Your task to perform on an android device: Open Google Maps and go to "Timeline" Image 0: 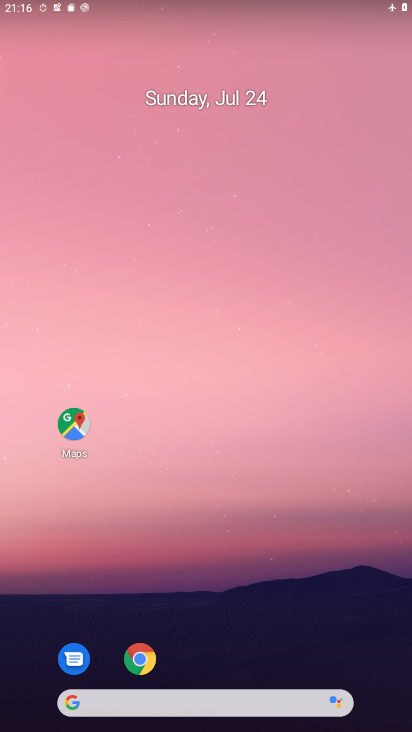
Step 0: drag from (197, 719) to (197, 115)
Your task to perform on an android device: Open Google Maps and go to "Timeline" Image 1: 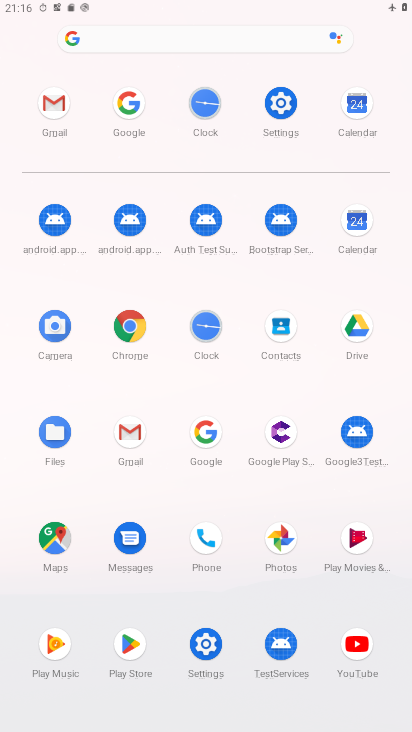
Step 1: click (49, 539)
Your task to perform on an android device: Open Google Maps and go to "Timeline" Image 2: 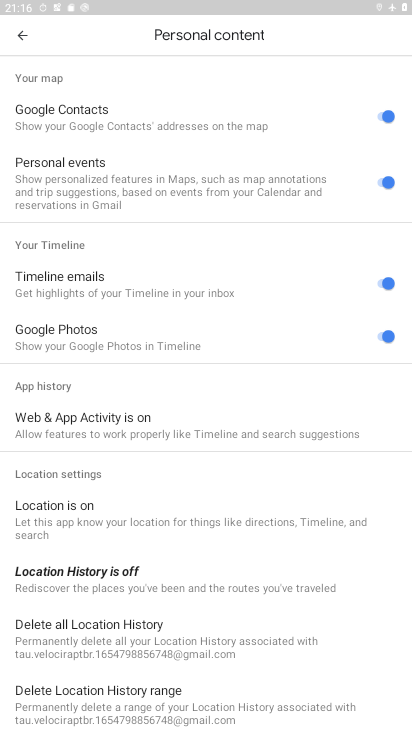
Step 2: click (21, 31)
Your task to perform on an android device: Open Google Maps and go to "Timeline" Image 3: 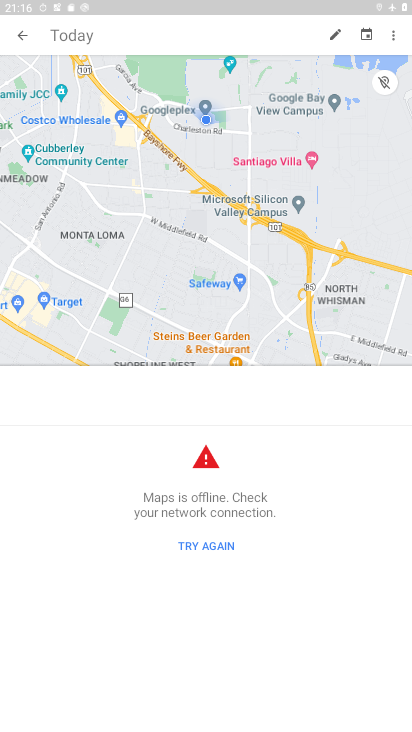
Step 3: task complete